Your task to perform on an android device: turn on location history Image 0: 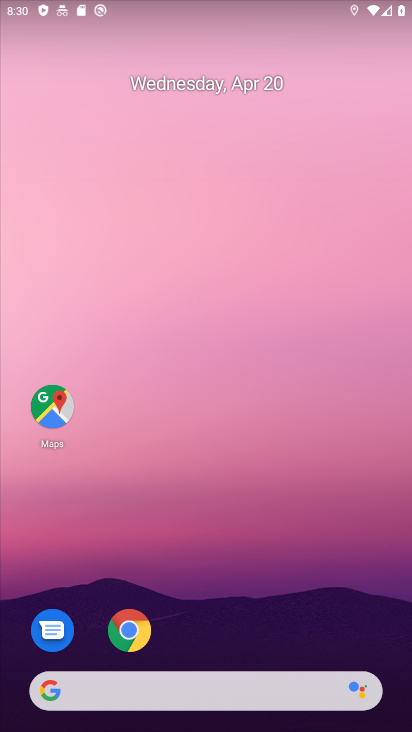
Step 0: drag from (184, 566) to (347, 0)
Your task to perform on an android device: turn on location history Image 1: 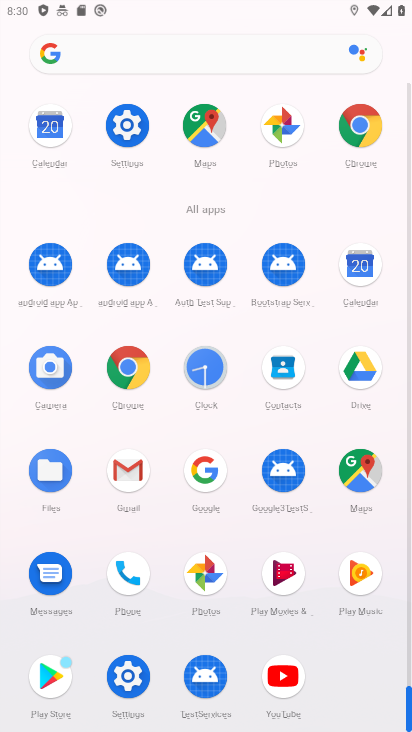
Step 1: click (125, 131)
Your task to perform on an android device: turn on location history Image 2: 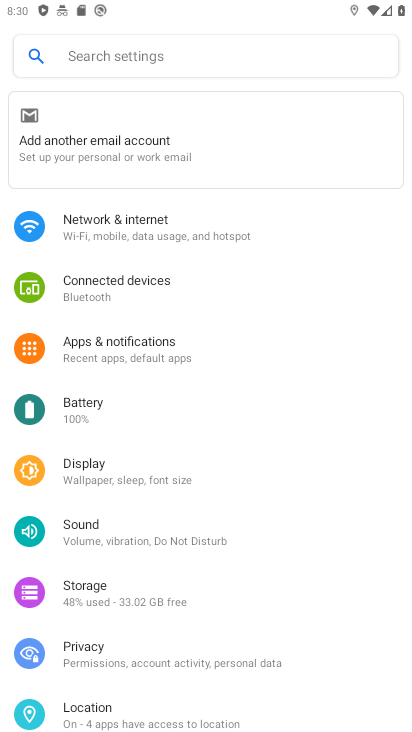
Step 2: click (83, 711)
Your task to perform on an android device: turn on location history Image 3: 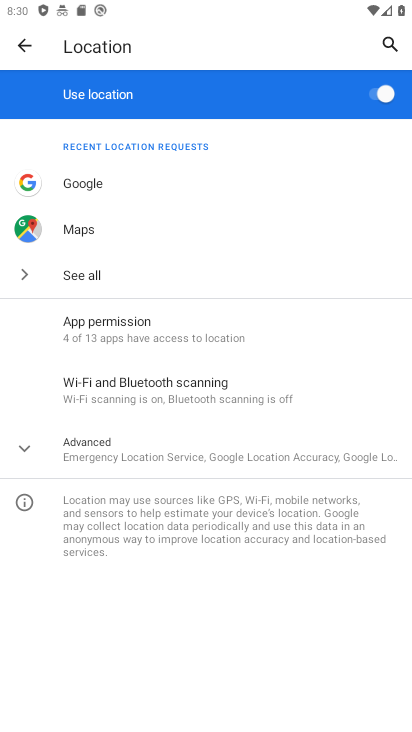
Step 3: click (131, 452)
Your task to perform on an android device: turn on location history Image 4: 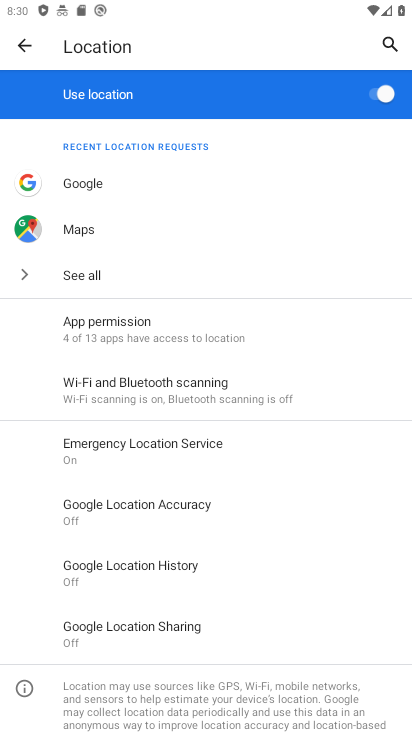
Step 4: click (129, 577)
Your task to perform on an android device: turn on location history Image 5: 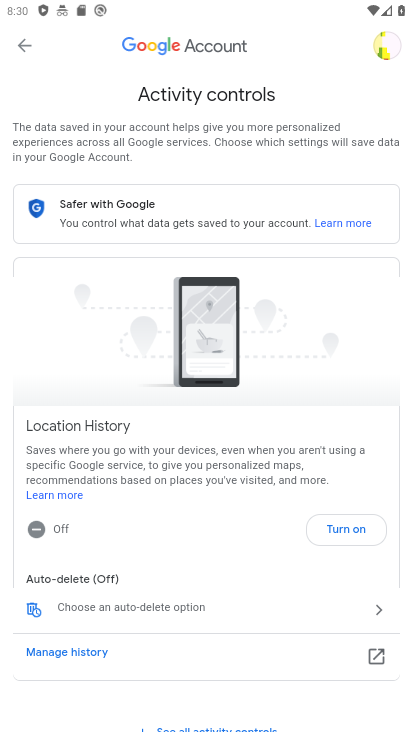
Step 5: click (341, 531)
Your task to perform on an android device: turn on location history Image 6: 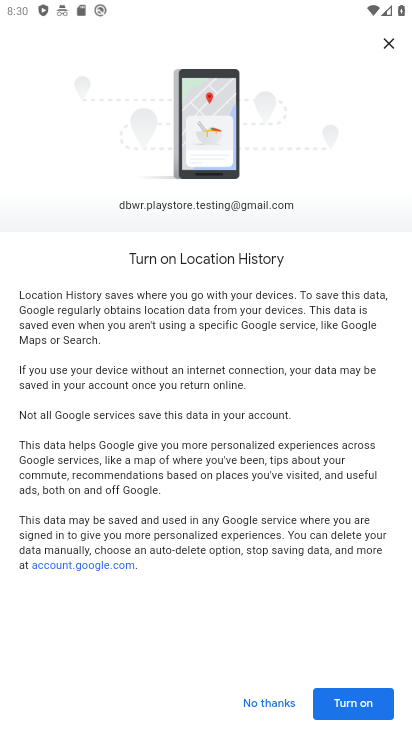
Step 6: click (340, 710)
Your task to perform on an android device: turn on location history Image 7: 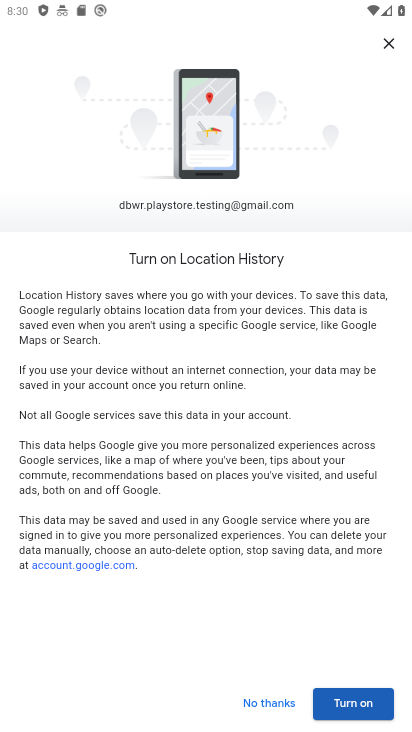
Step 7: click (351, 711)
Your task to perform on an android device: turn on location history Image 8: 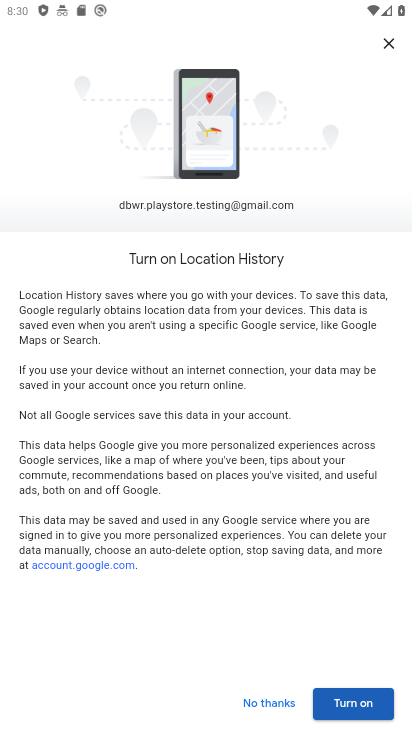
Step 8: click (358, 699)
Your task to perform on an android device: turn on location history Image 9: 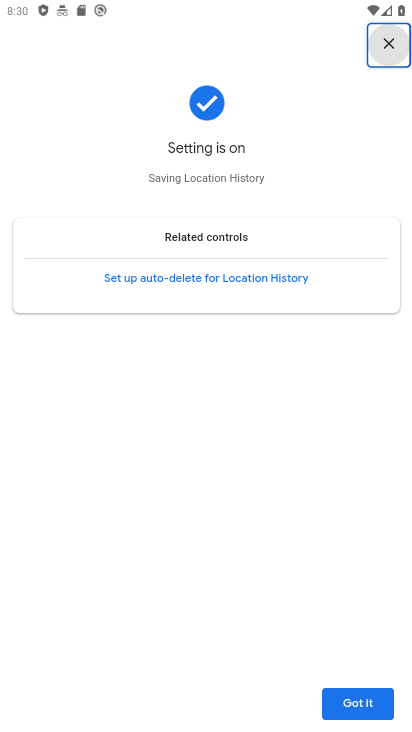
Step 9: click (356, 702)
Your task to perform on an android device: turn on location history Image 10: 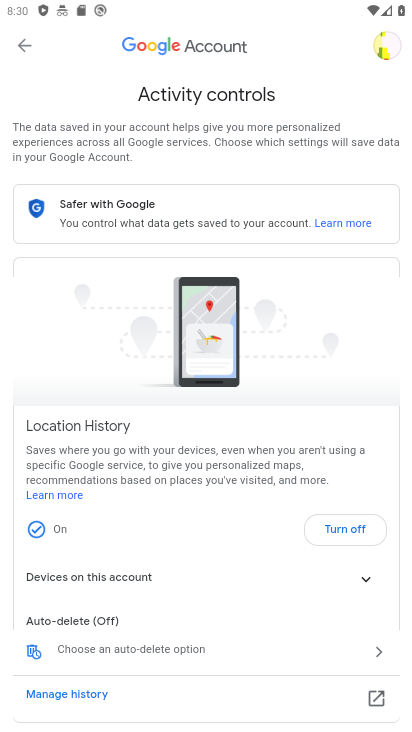
Step 10: task complete